Your task to perform on an android device: Go to Amazon Image 0: 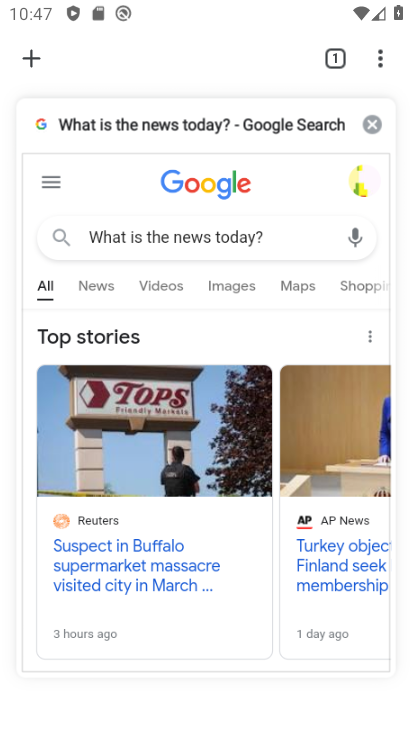
Step 0: press home button
Your task to perform on an android device: Go to Amazon Image 1: 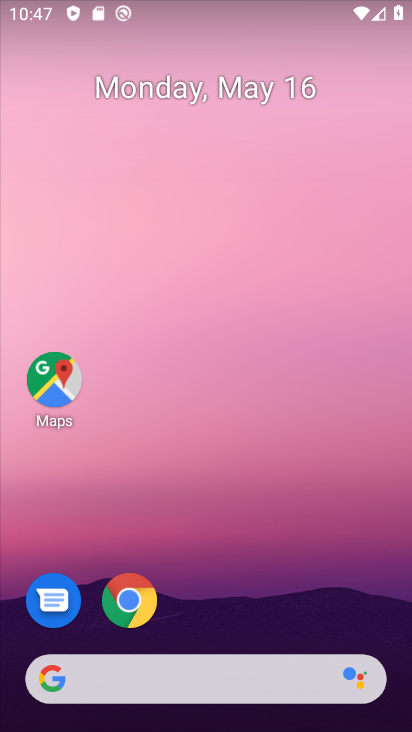
Step 1: click (137, 602)
Your task to perform on an android device: Go to Amazon Image 2: 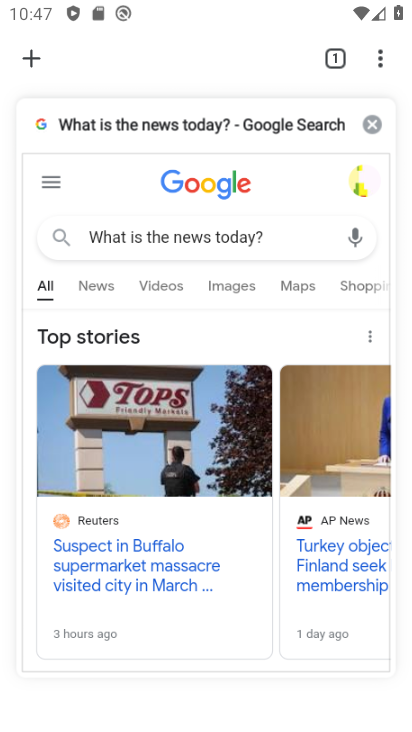
Step 2: click (148, 146)
Your task to perform on an android device: Go to Amazon Image 3: 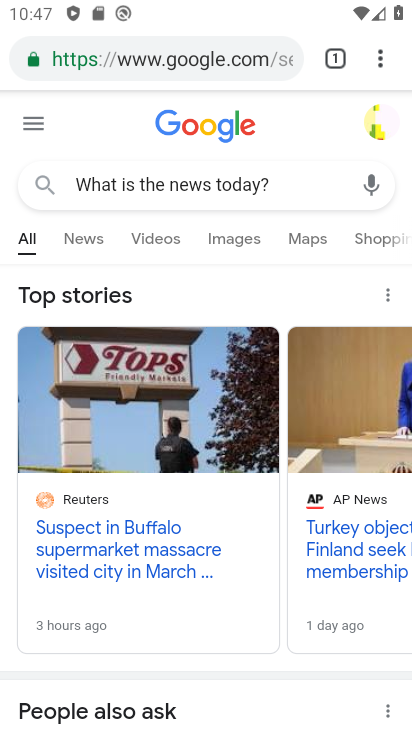
Step 3: click (132, 73)
Your task to perform on an android device: Go to Amazon Image 4: 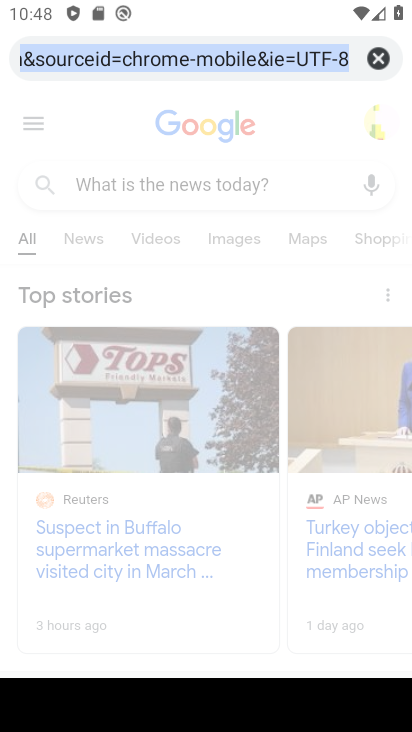
Step 4: type "Amazon"
Your task to perform on an android device: Go to Amazon Image 5: 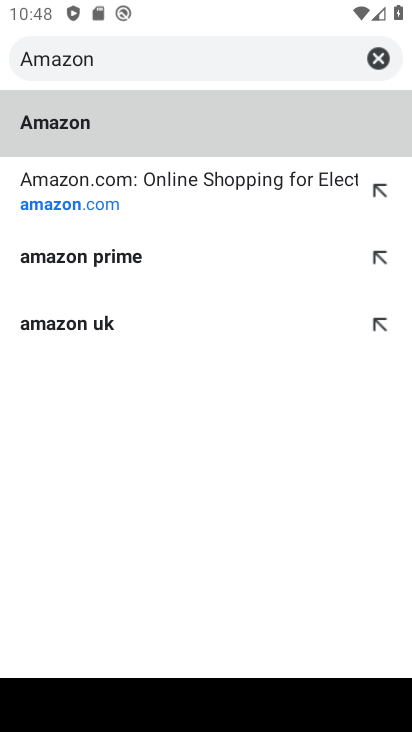
Step 5: click (172, 143)
Your task to perform on an android device: Go to Amazon Image 6: 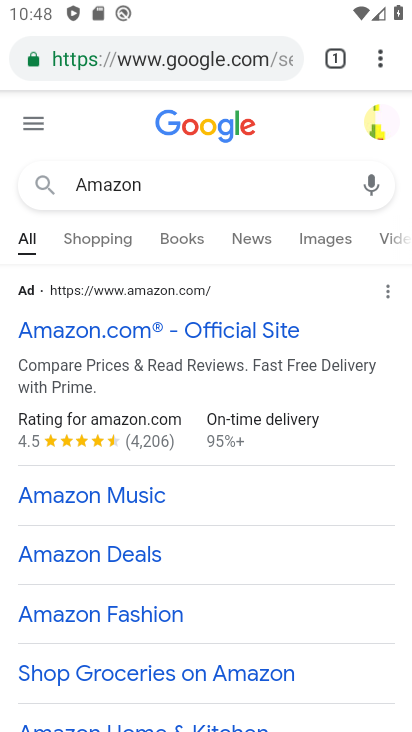
Step 6: task complete